Your task to perform on an android device: turn on the 12-hour format for clock Image 0: 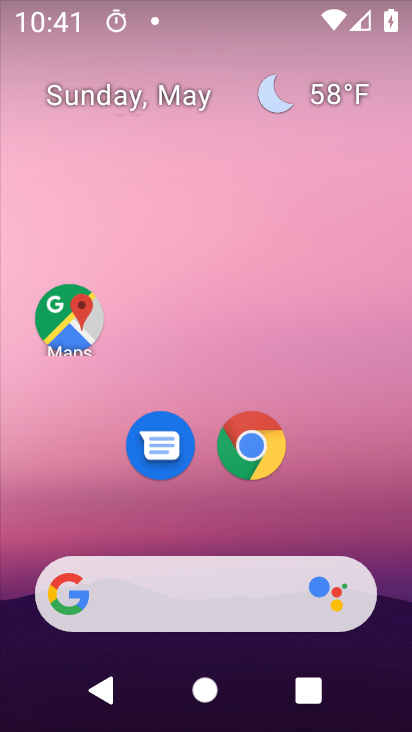
Step 0: drag from (292, 312) to (227, 0)
Your task to perform on an android device: turn on the 12-hour format for clock Image 1: 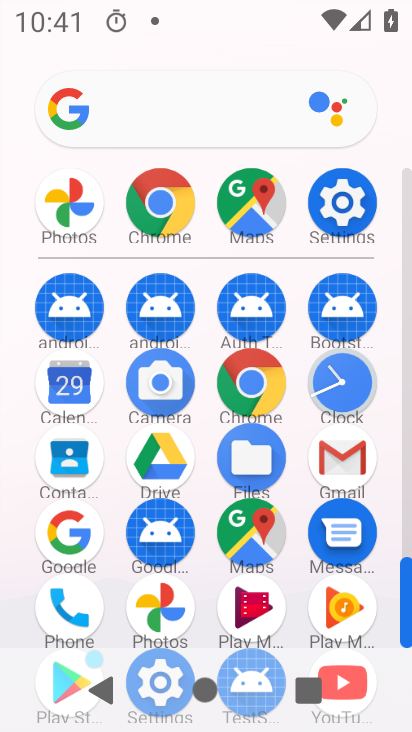
Step 1: drag from (17, 593) to (19, 324)
Your task to perform on an android device: turn on the 12-hour format for clock Image 2: 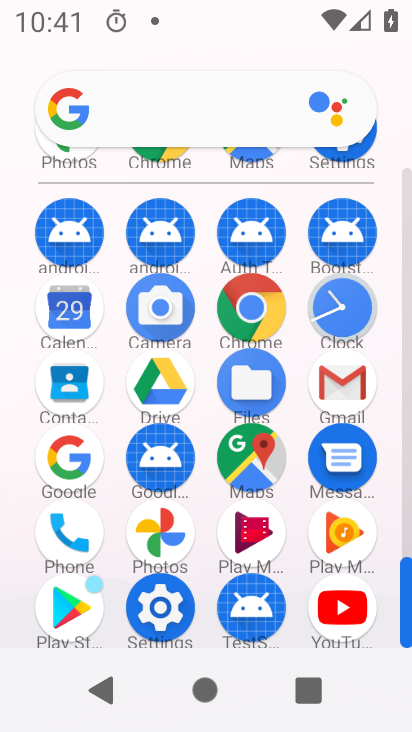
Step 2: click (344, 305)
Your task to perform on an android device: turn on the 12-hour format for clock Image 3: 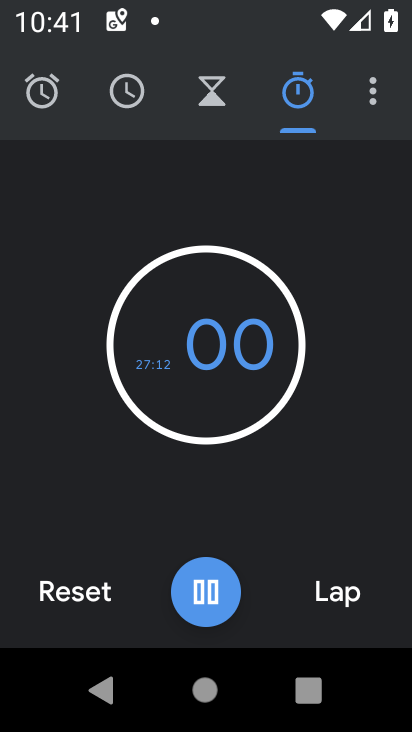
Step 3: drag from (366, 101) to (295, 145)
Your task to perform on an android device: turn on the 12-hour format for clock Image 4: 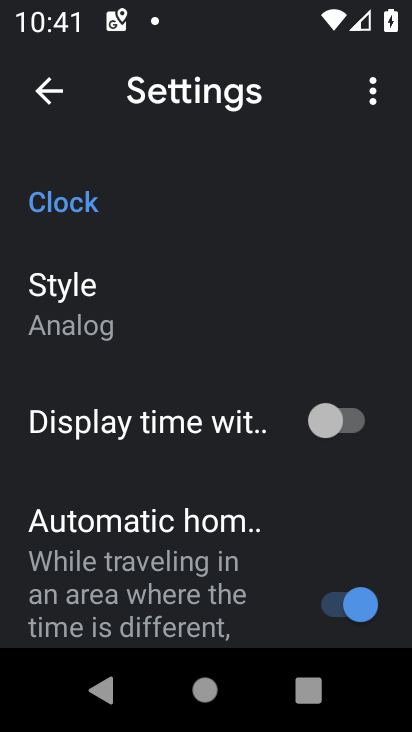
Step 4: drag from (212, 519) to (262, 174)
Your task to perform on an android device: turn on the 12-hour format for clock Image 5: 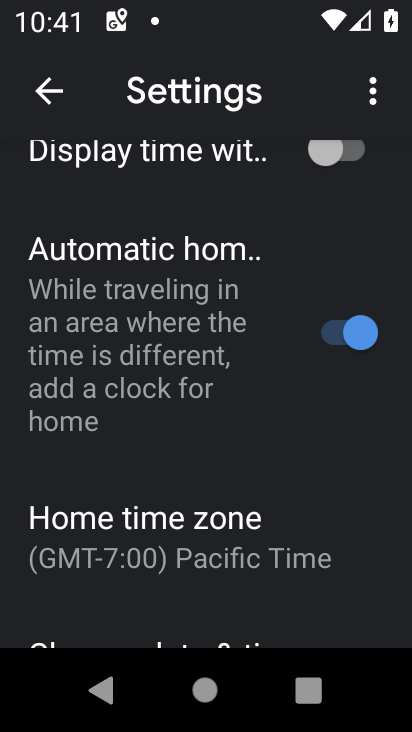
Step 5: drag from (241, 526) to (242, 168)
Your task to perform on an android device: turn on the 12-hour format for clock Image 6: 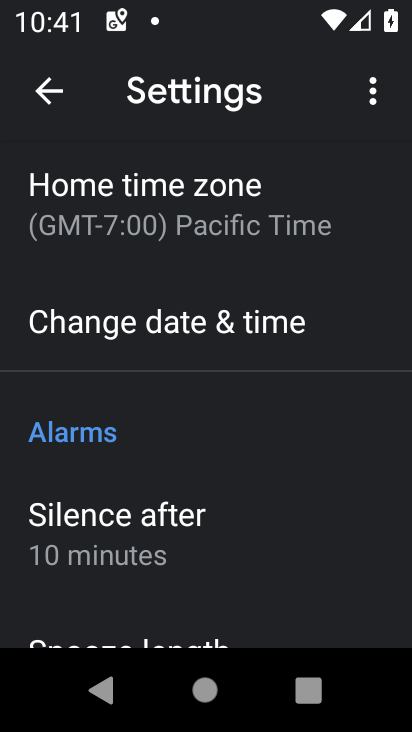
Step 6: click (209, 325)
Your task to perform on an android device: turn on the 12-hour format for clock Image 7: 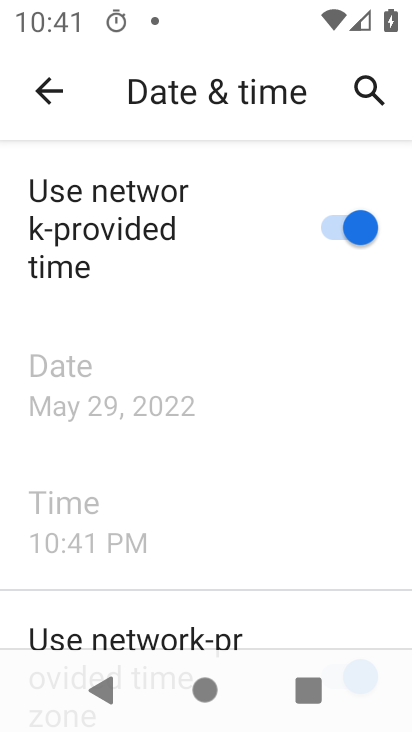
Step 7: task complete